Your task to perform on an android device: check data usage Image 0: 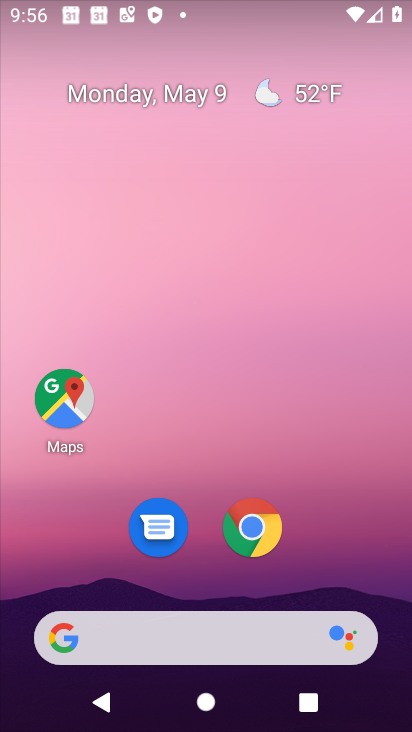
Step 0: drag from (197, 551) to (200, 73)
Your task to perform on an android device: check data usage Image 1: 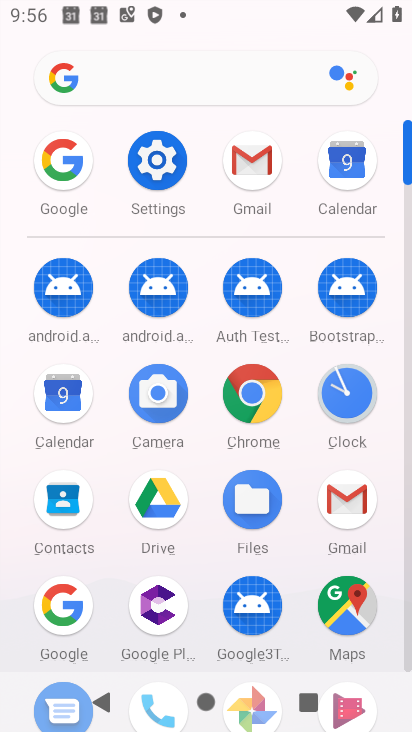
Step 1: click (167, 163)
Your task to perform on an android device: check data usage Image 2: 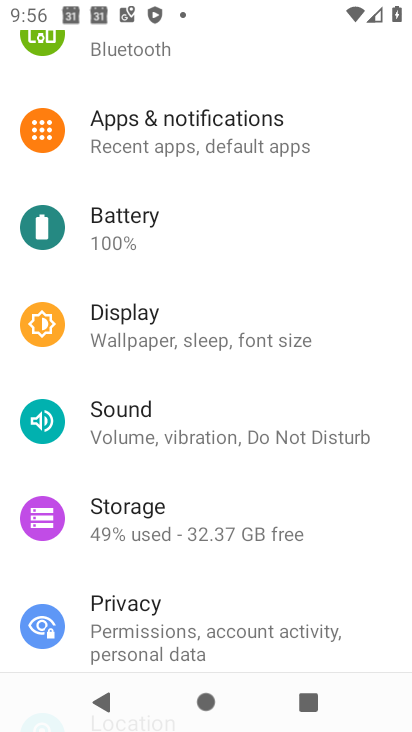
Step 2: drag from (168, 163) to (246, 673)
Your task to perform on an android device: check data usage Image 3: 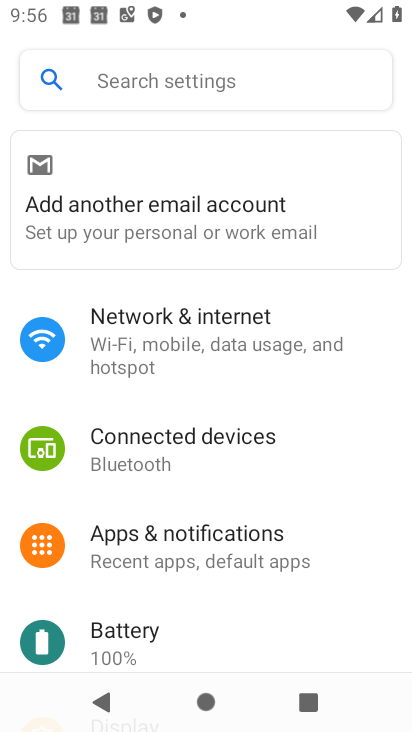
Step 3: click (172, 347)
Your task to perform on an android device: check data usage Image 4: 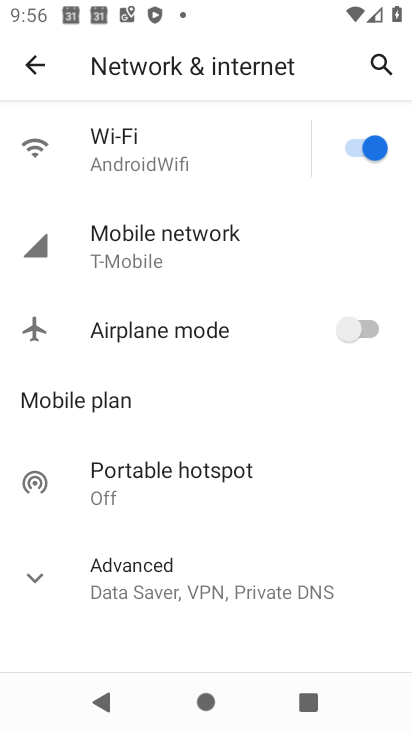
Step 4: click (164, 262)
Your task to perform on an android device: check data usage Image 5: 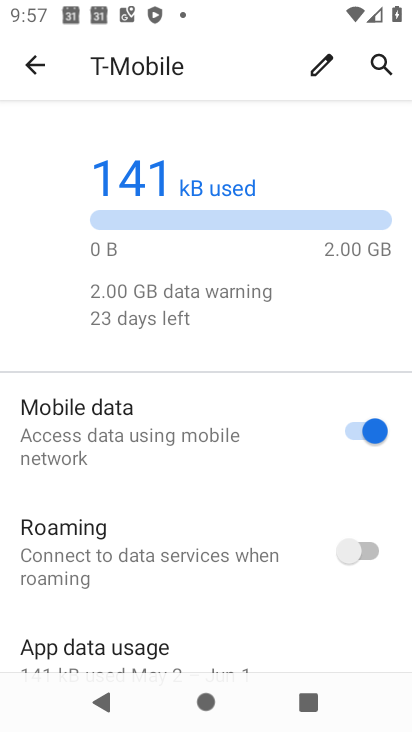
Step 5: task complete